Your task to perform on an android device: Open my contact list Image 0: 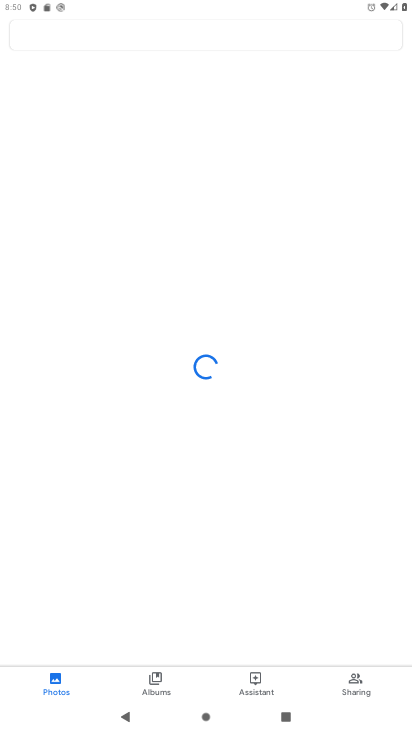
Step 0: press home button
Your task to perform on an android device: Open my contact list Image 1: 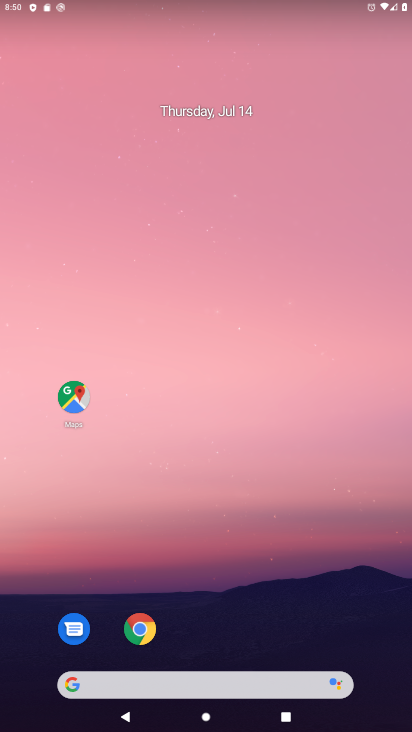
Step 1: drag from (262, 629) to (274, 58)
Your task to perform on an android device: Open my contact list Image 2: 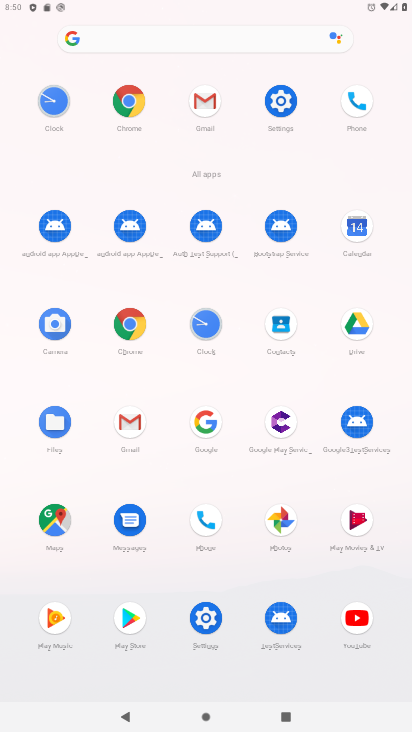
Step 2: click (281, 322)
Your task to perform on an android device: Open my contact list Image 3: 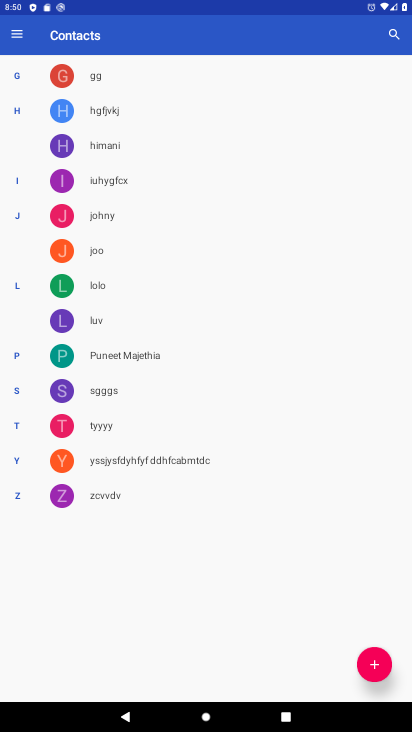
Step 3: task complete